Your task to perform on an android device: check android version Image 0: 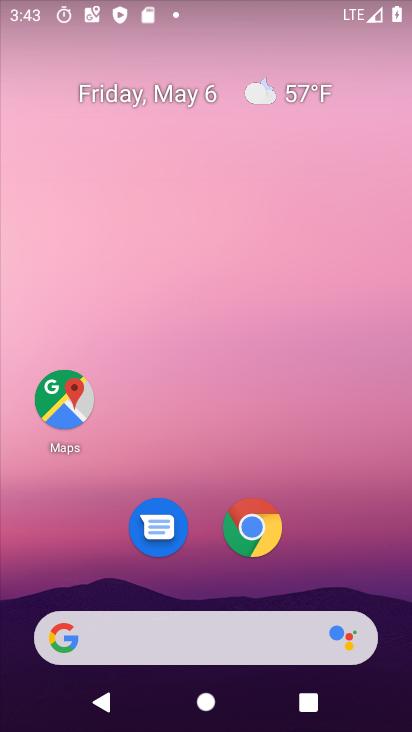
Step 0: drag from (313, 564) to (278, 128)
Your task to perform on an android device: check android version Image 1: 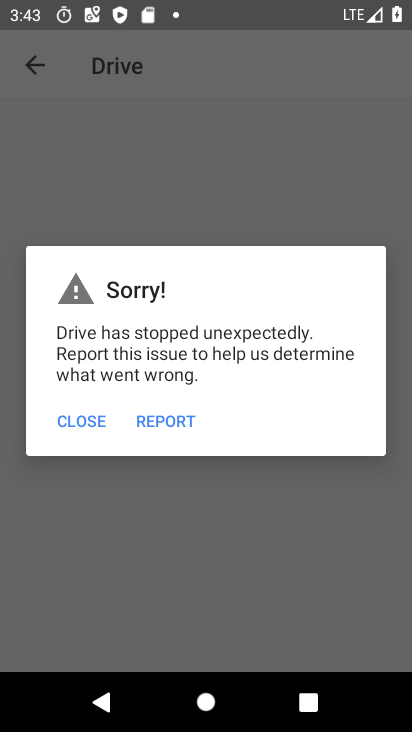
Step 1: press home button
Your task to perform on an android device: check android version Image 2: 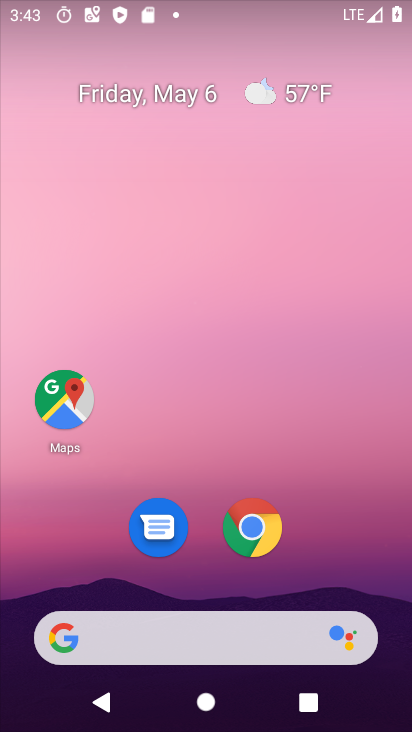
Step 2: drag from (340, 556) to (344, 235)
Your task to perform on an android device: check android version Image 3: 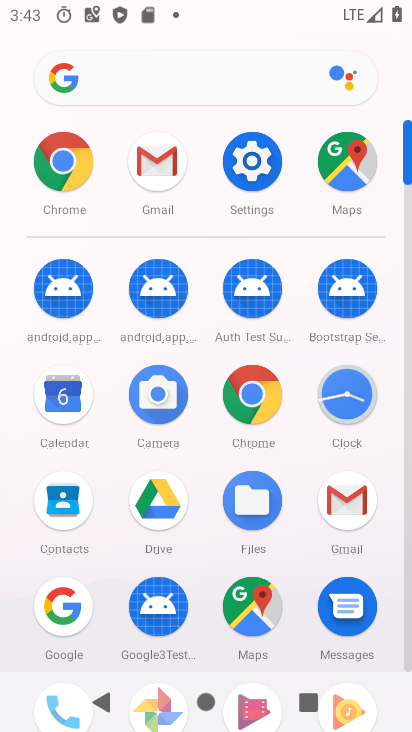
Step 3: click (252, 170)
Your task to perform on an android device: check android version Image 4: 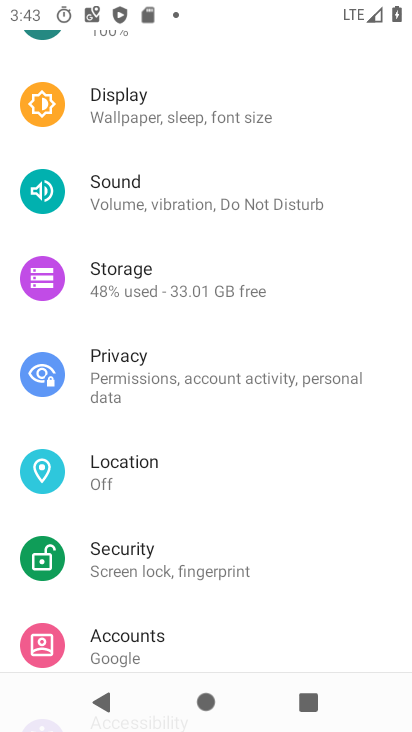
Step 4: drag from (181, 581) to (189, 266)
Your task to perform on an android device: check android version Image 5: 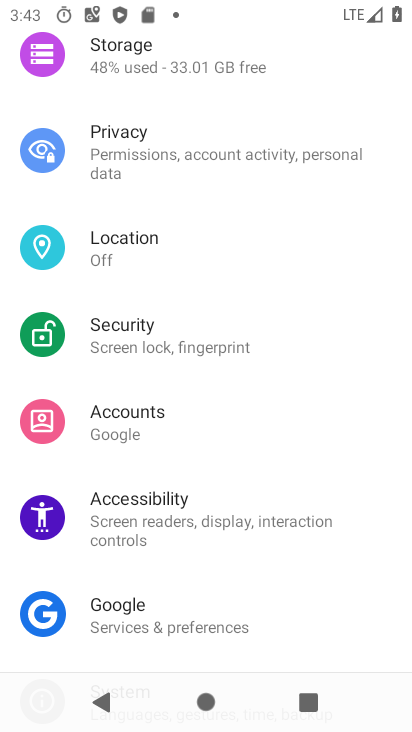
Step 5: drag from (167, 626) to (219, 236)
Your task to perform on an android device: check android version Image 6: 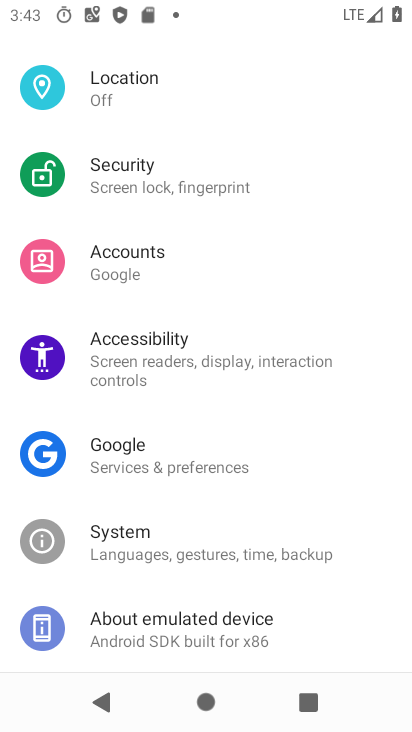
Step 6: click (143, 612)
Your task to perform on an android device: check android version Image 7: 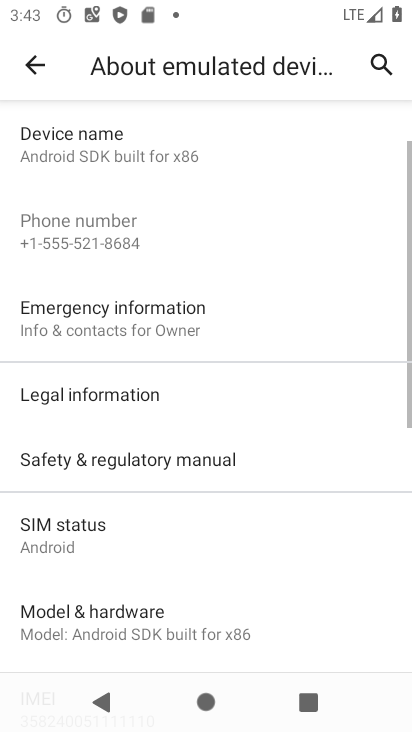
Step 7: drag from (104, 596) to (169, 266)
Your task to perform on an android device: check android version Image 8: 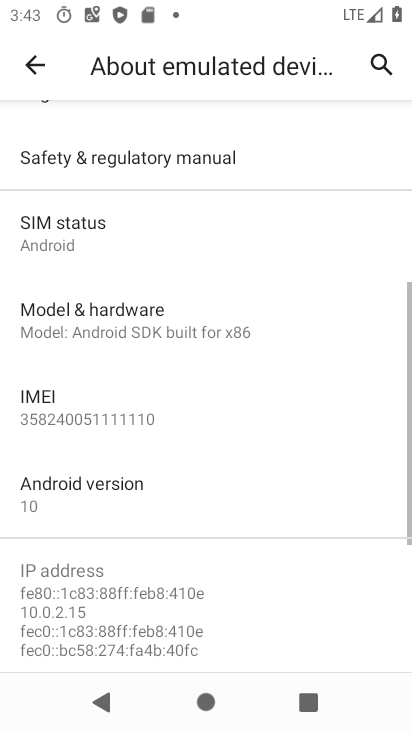
Step 8: click (74, 504)
Your task to perform on an android device: check android version Image 9: 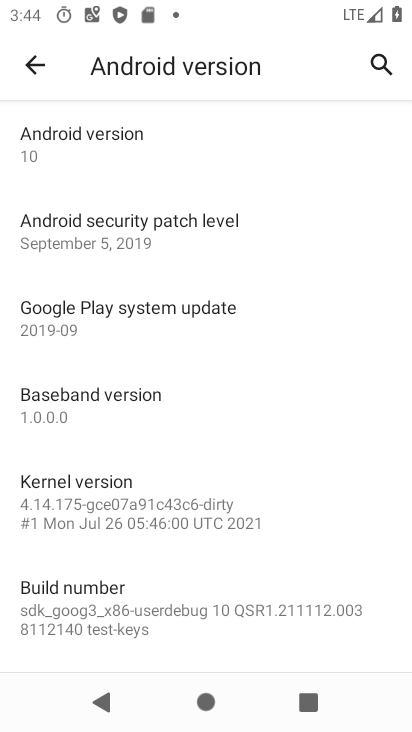
Step 9: task complete